Your task to perform on an android device: turn on javascript in the chrome app Image 0: 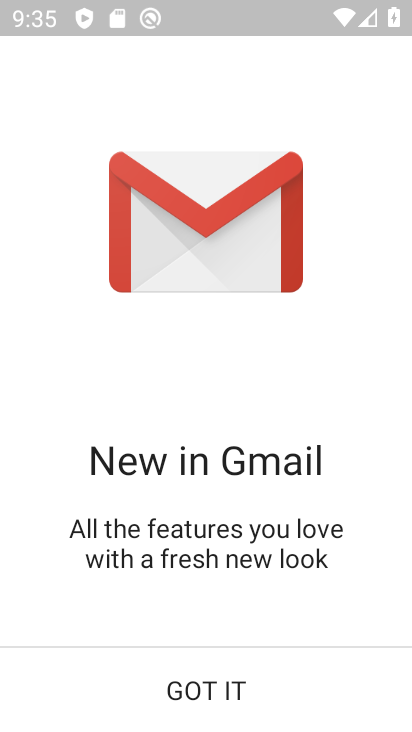
Step 0: press home button
Your task to perform on an android device: turn on javascript in the chrome app Image 1: 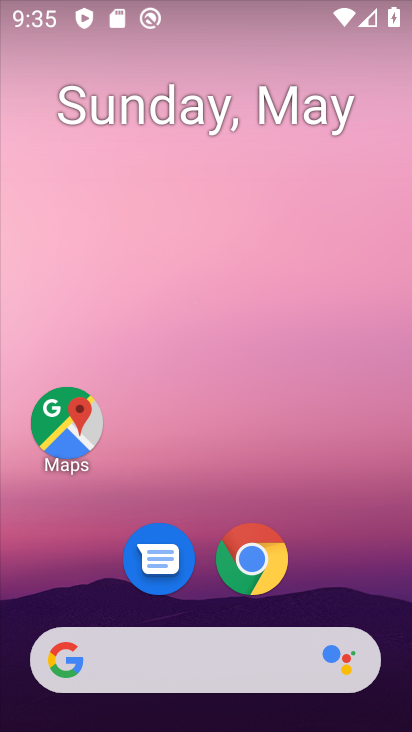
Step 1: click (272, 567)
Your task to perform on an android device: turn on javascript in the chrome app Image 2: 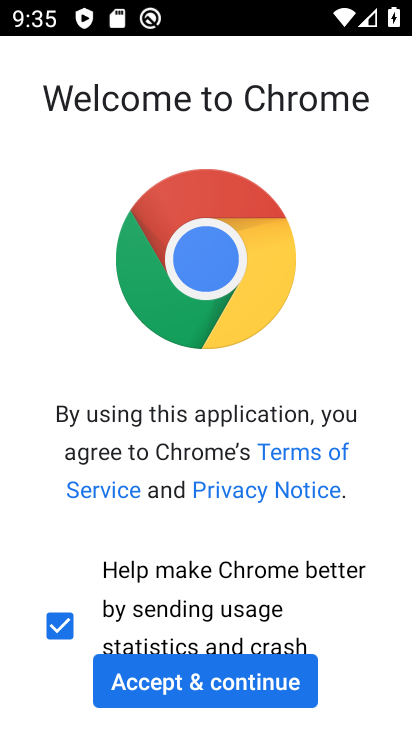
Step 2: click (307, 675)
Your task to perform on an android device: turn on javascript in the chrome app Image 3: 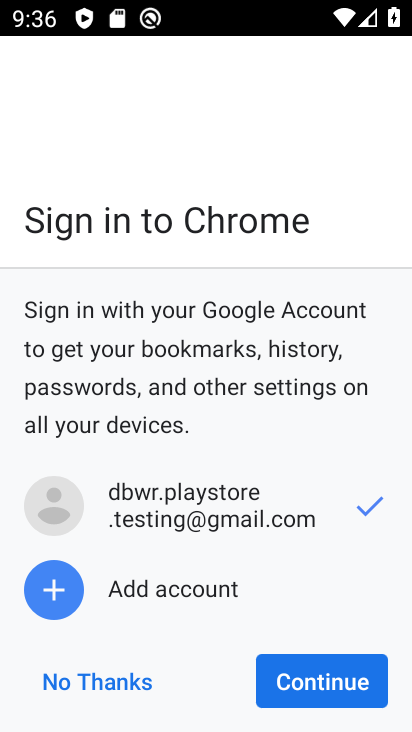
Step 3: click (316, 679)
Your task to perform on an android device: turn on javascript in the chrome app Image 4: 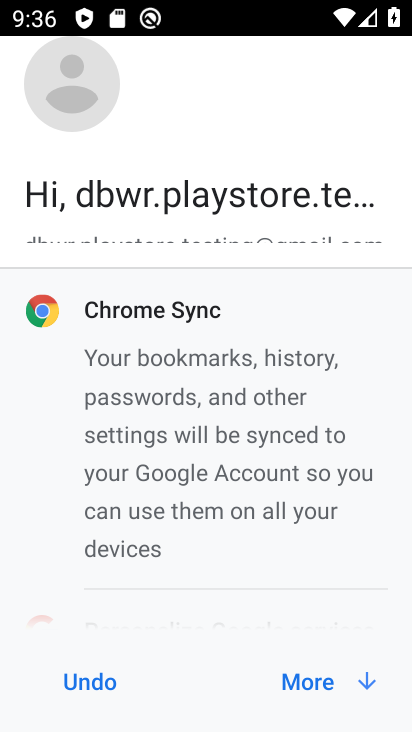
Step 4: click (316, 679)
Your task to perform on an android device: turn on javascript in the chrome app Image 5: 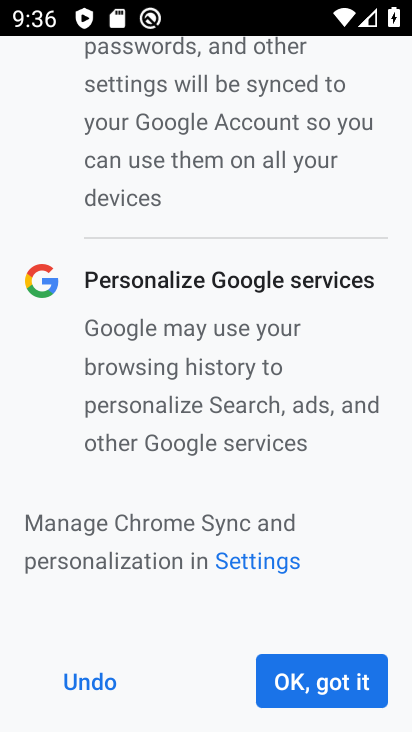
Step 5: click (316, 679)
Your task to perform on an android device: turn on javascript in the chrome app Image 6: 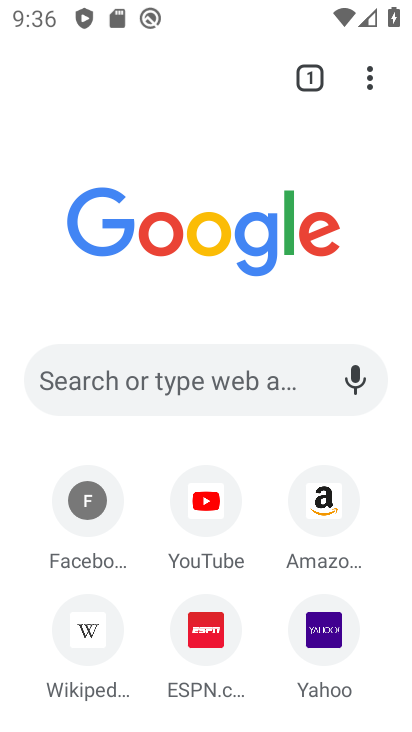
Step 6: click (373, 88)
Your task to perform on an android device: turn on javascript in the chrome app Image 7: 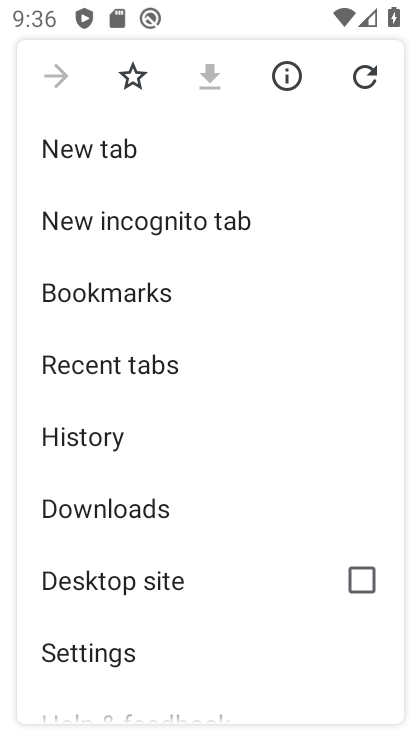
Step 7: drag from (210, 681) to (220, 331)
Your task to perform on an android device: turn on javascript in the chrome app Image 8: 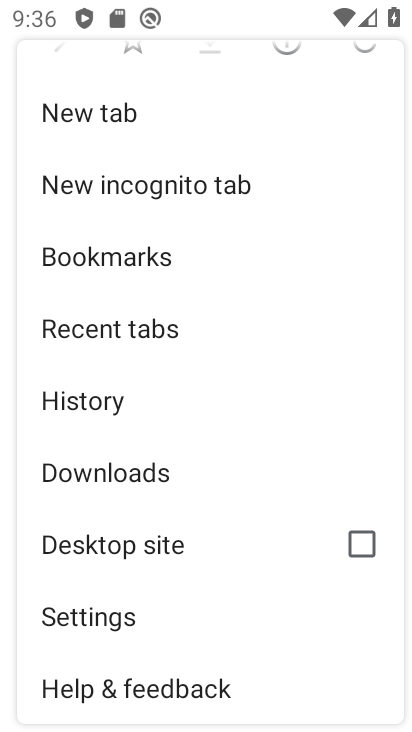
Step 8: click (197, 611)
Your task to perform on an android device: turn on javascript in the chrome app Image 9: 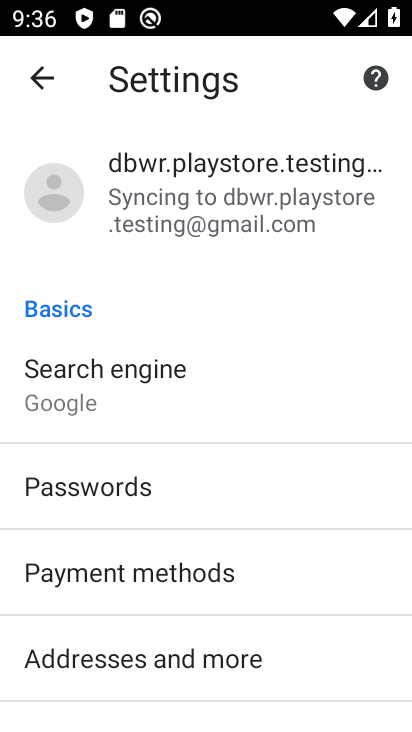
Step 9: drag from (193, 642) to (191, 194)
Your task to perform on an android device: turn on javascript in the chrome app Image 10: 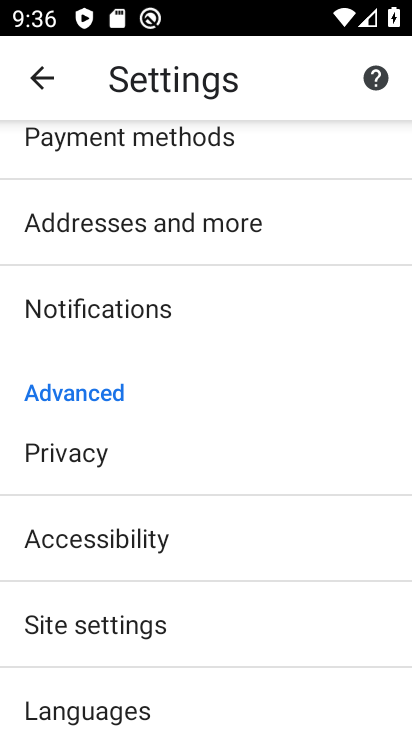
Step 10: drag from (212, 622) to (202, 320)
Your task to perform on an android device: turn on javascript in the chrome app Image 11: 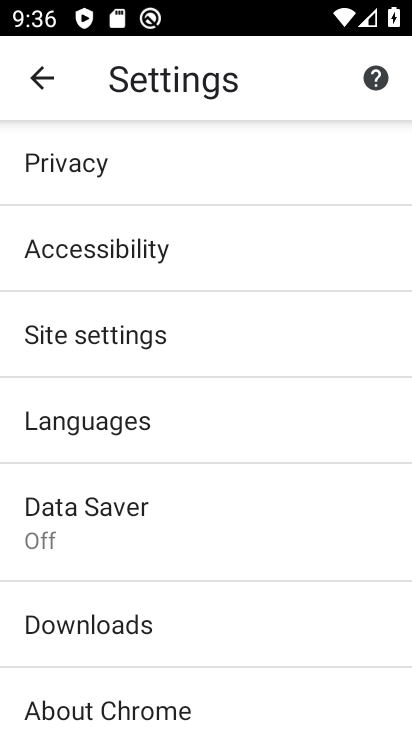
Step 11: click (134, 342)
Your task to perform on an android device: turn on javascript in the chrome app Image 12: 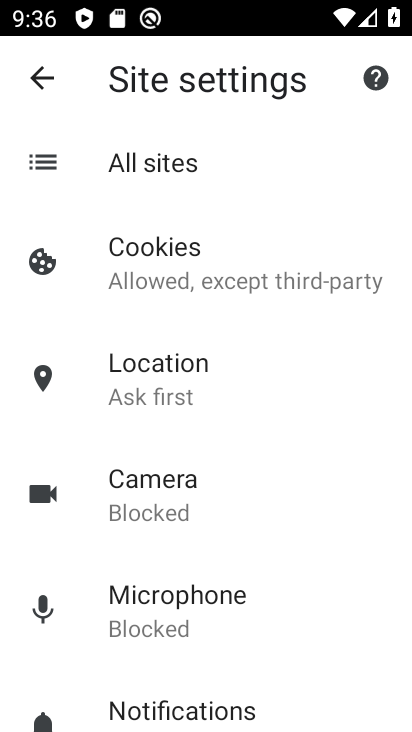
Step 12: drag from (233, 611) to (216, 307)
Your task to perform on an android device: turn on javascript in the chrome app Image 13: 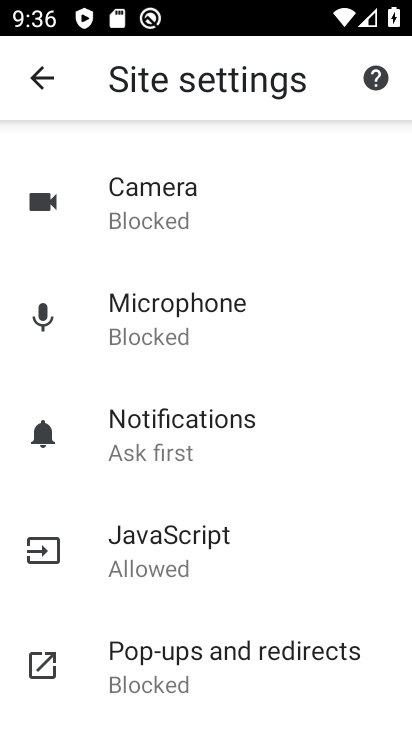
Step 13: click (229, 544)
Your task to perform on an android device: turn on javascript in the chrome app Image 14: 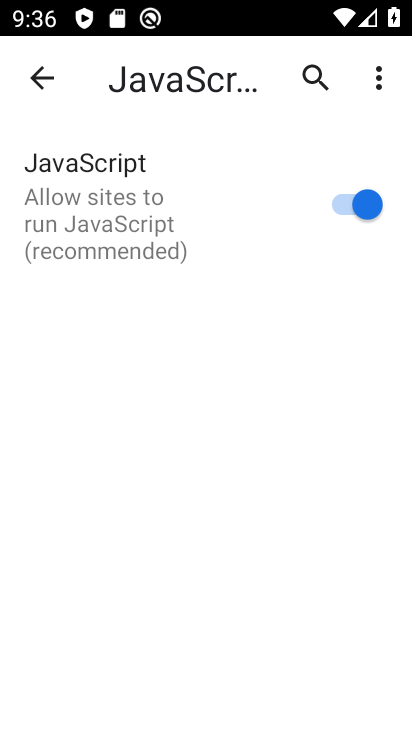
Step 14: task complete